Your task to perform on an android device: Add lg ultragear to the cart on bestbuy.com, then select checkout. Image 0: 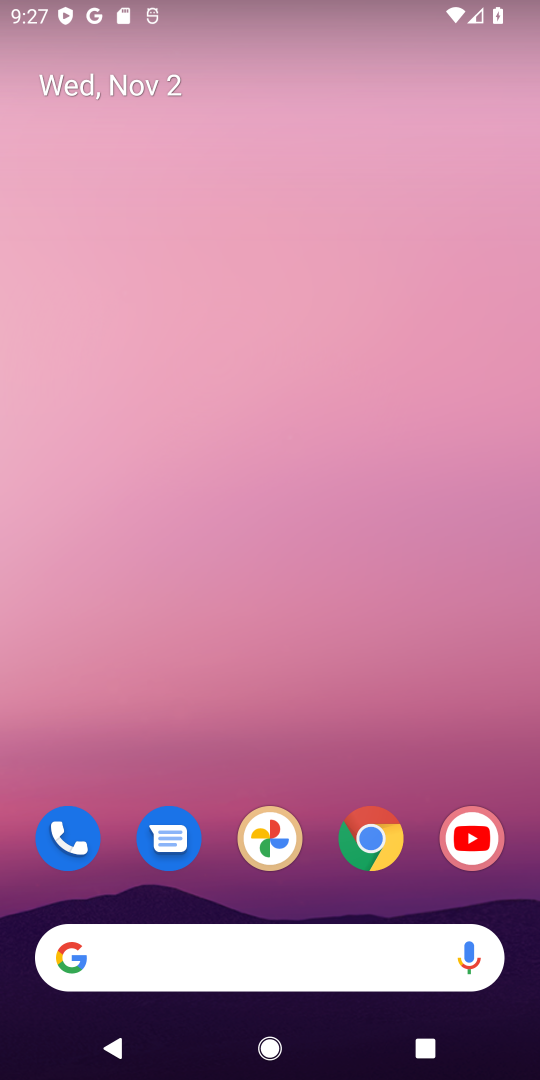
Step 0: click (380, 839)
Your task to perform on an android device: Add lg ultragear to the cart on bestbuy.com, then select checkout. Image 1: 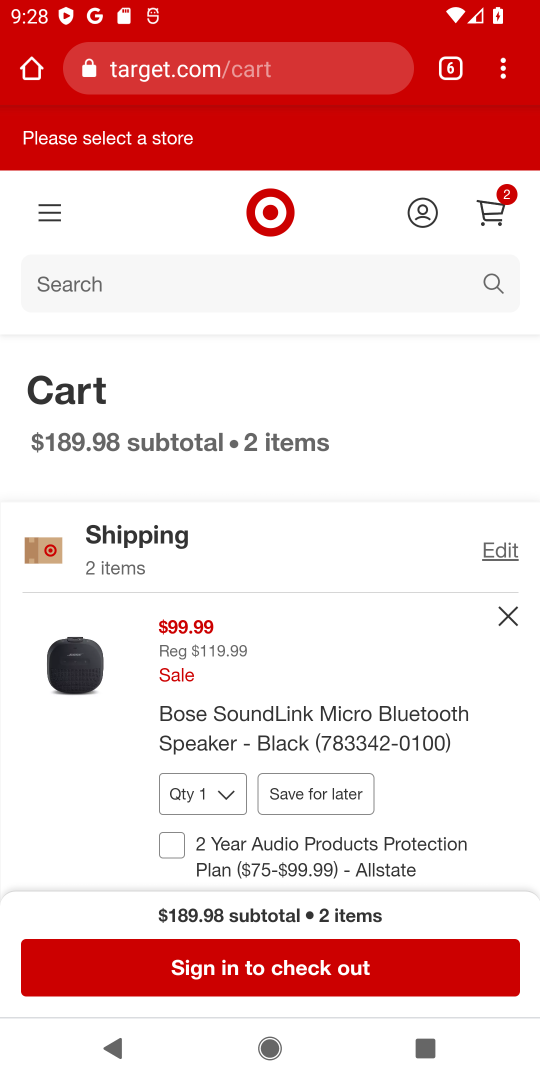
Step 1: click (456, 67)
Your task to perform on an android device: Add lg ultragear to the cart on bestbuy.com, then select checkout. Image 2: 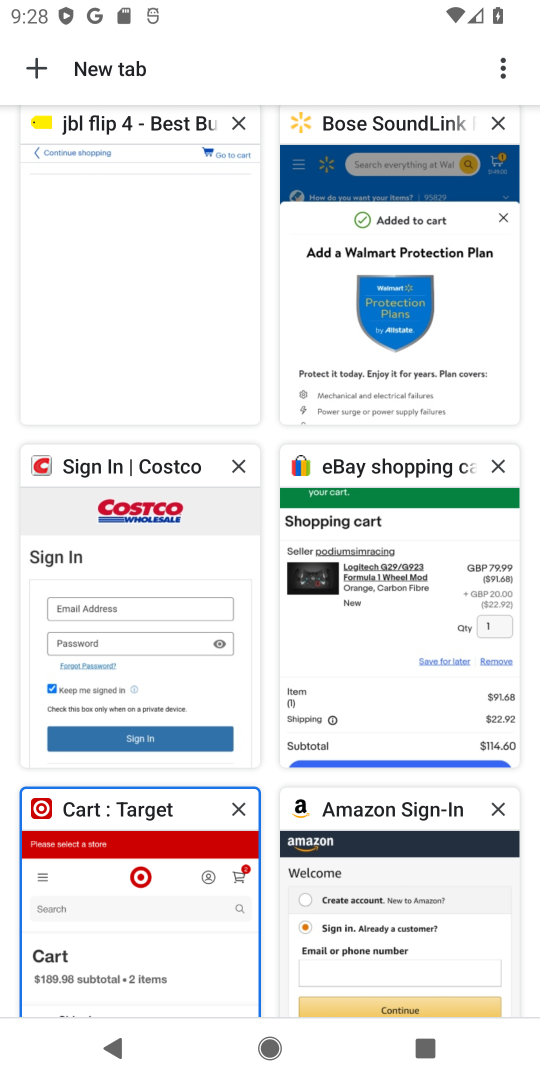
Step 2: click (456, 67)
Your task to perform on an android device: Add lg ultragear to the cart on bestbuy.com, then select checkout. Image 3: 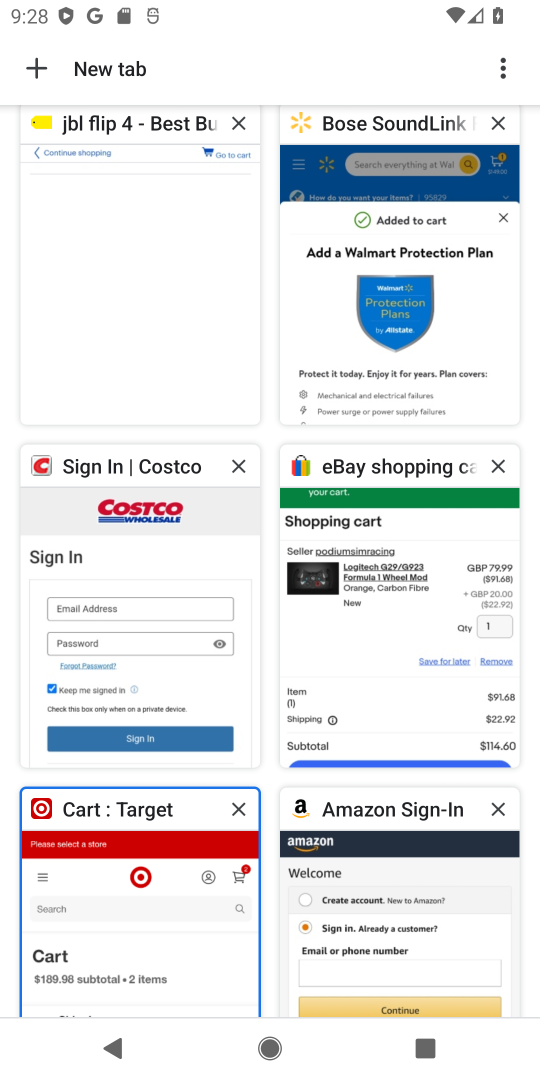
Step 3: click (151, 279)
Your task to perform on an android device: Add lg ultragear to the cart on bestbuy.com, then select checkout. Image 4: 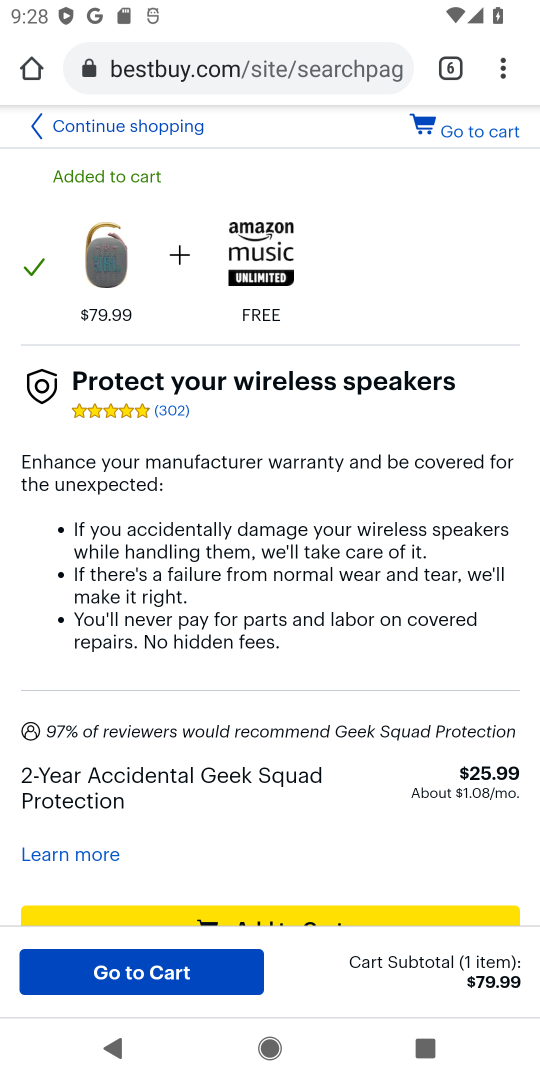
Step 4: click (140, 119)
Your task to perform on an android device: Add lg ultragear to the cart on bestbuy.com, then select checkout. Image 5: 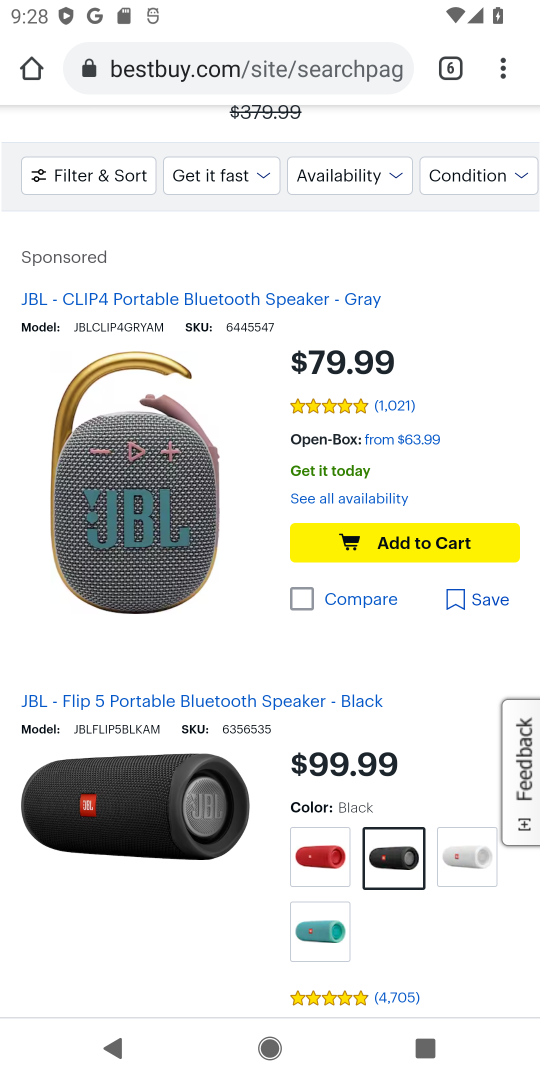
Step 5: drag from (469, 418) to (401, 765)
Your task to perform on an android device: Add lg ultragear to the cart on bestbuy.com, then select checkout. Image 6: 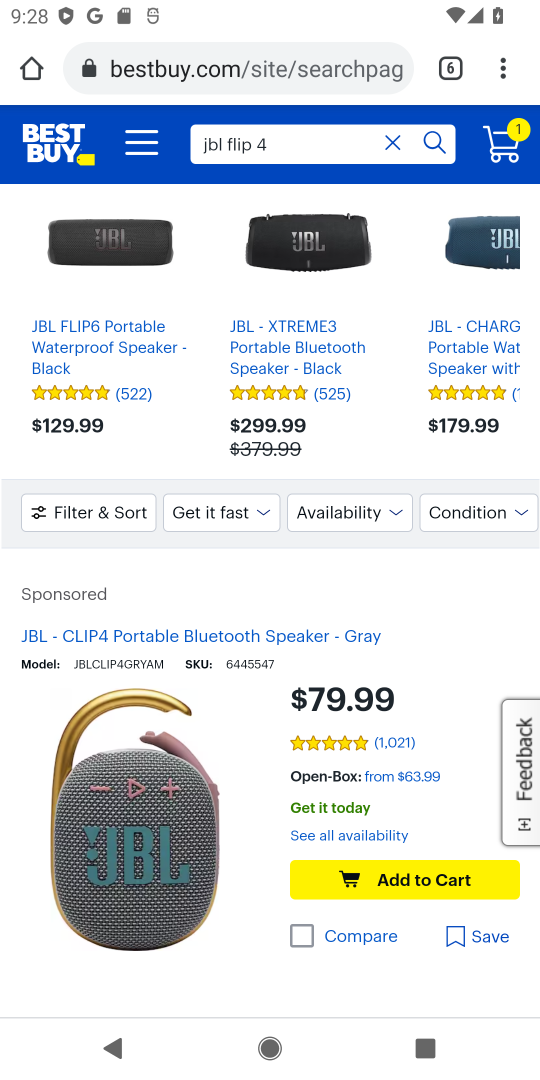
Step 6: click (388, 146)
Your task to perform on an android device: Add lg ultragear to the cart on bestbuy.com, then select checkout. Image 7: 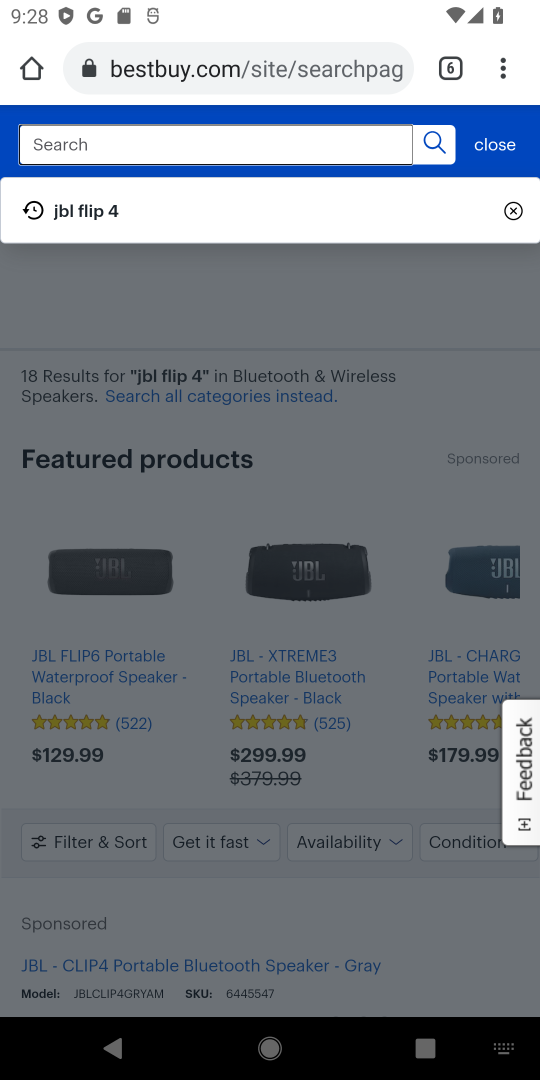
Step 7: type "lg ultragear"
Your task to perform on an android device: Add lg ultragear to the cart on bestbuy.com, then select checkout. Image 8: 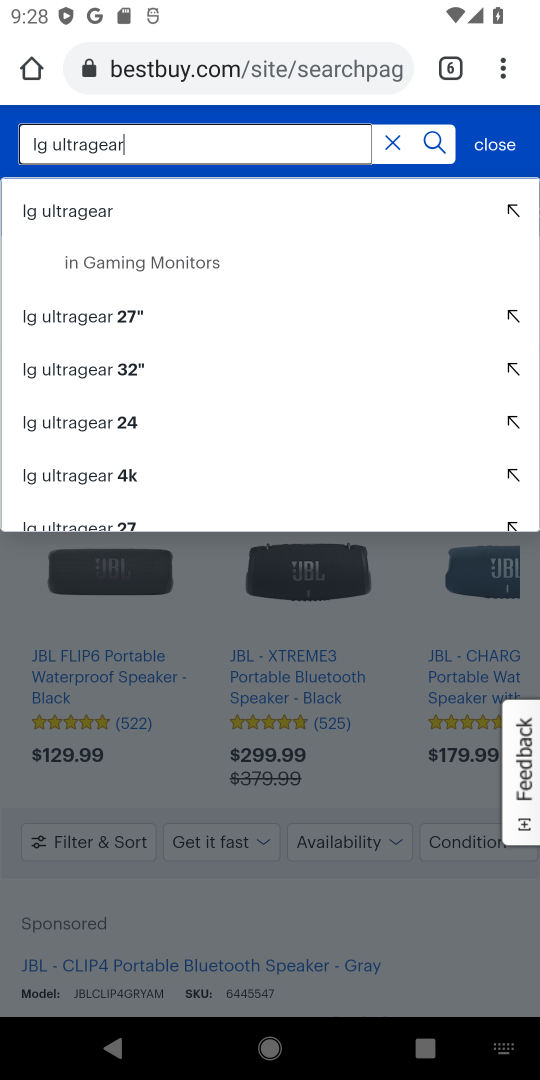
Step 8: click (97, 210)
Your task to perform on an android device: Add lg ultragear to the cart on bestbuy.com, then select checkout. Image 9: 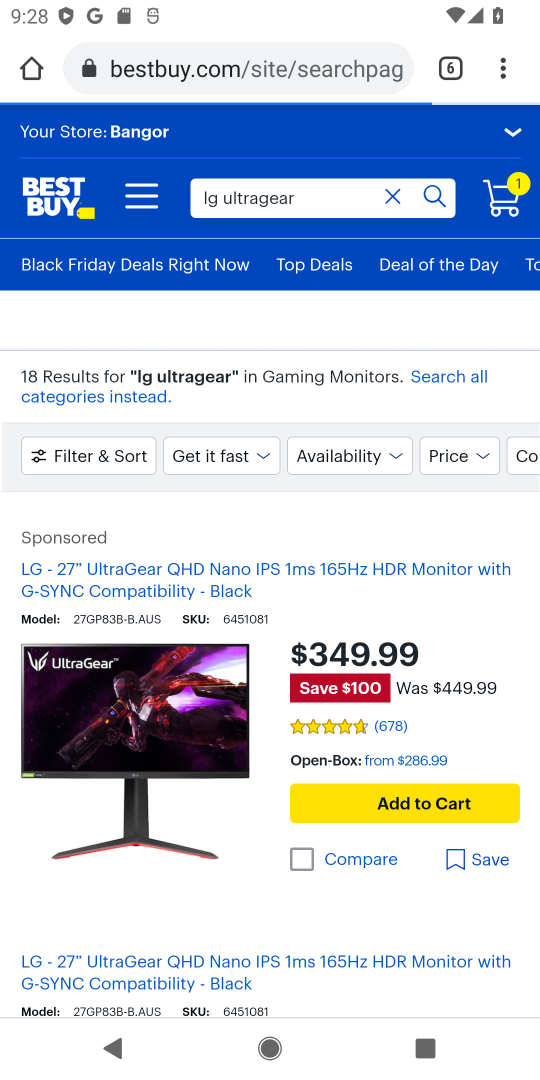
Step 9: click (416, 805)
Your task to perform on an android device: Add lg ultragear to the cart on bestbuy.com, then select checkout. Image 10: 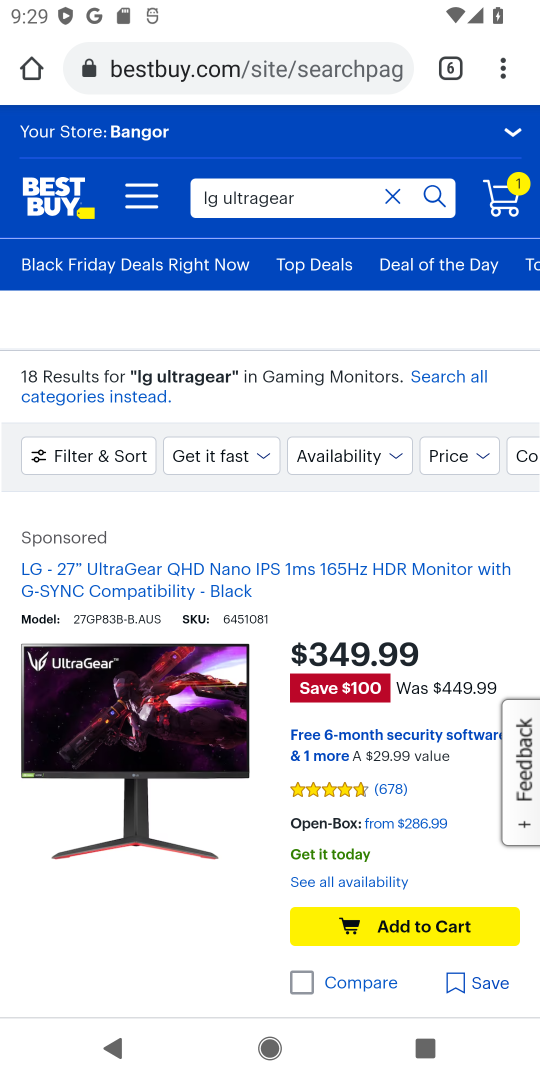
Step 10: click (445, 927)
Your task to perform on an android device: Add lg ultragear to the cart on bestbuy.com, then select checkout. Image 11: 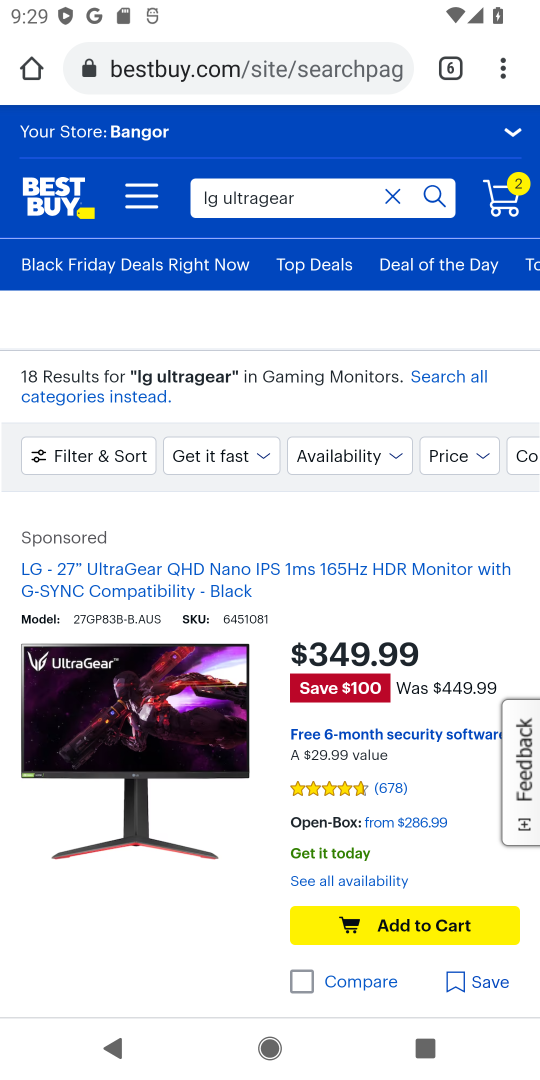
Step 11: click (503, 213)
Your task to perform on an android device: Add lg ultragear to the cart on bestbuy.com, then select checkout. Image 12: 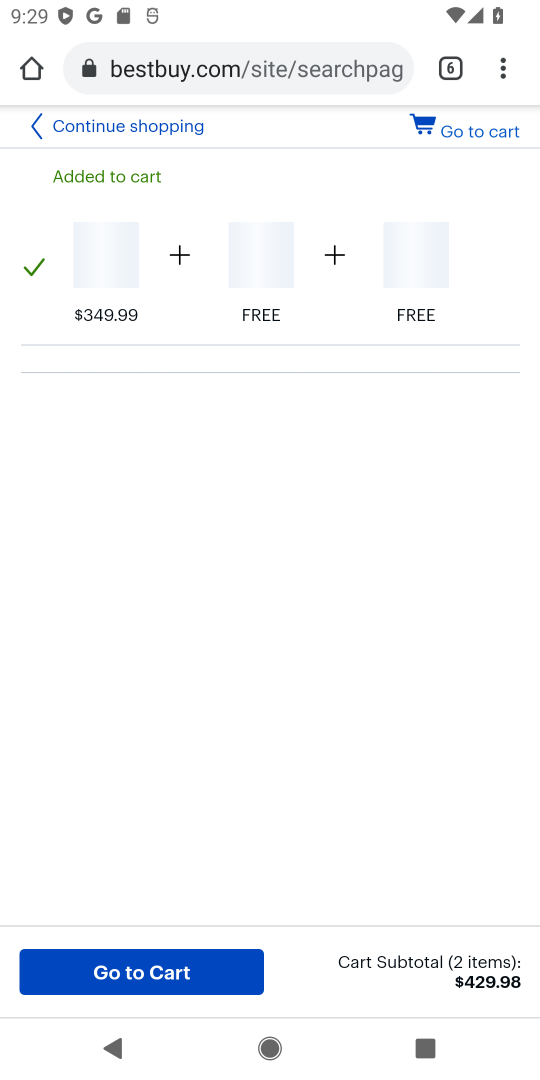
Step 12: click (165, 980)
Your task to perform on an android device: Add lg ultragear to the cart on bestbuy.com, then select checkout. Image 13: 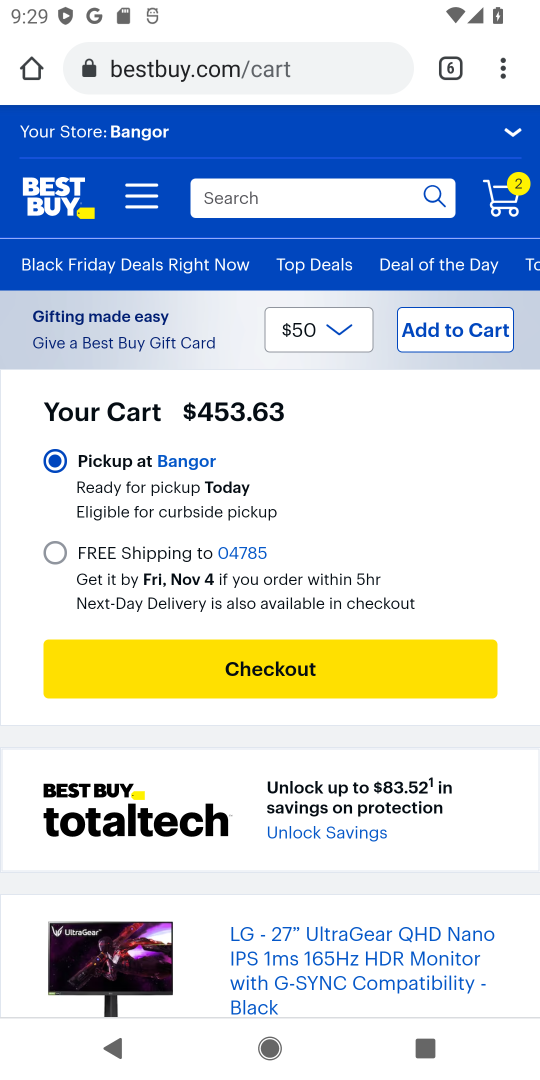
Step 13: click (317, 661)
Your task to perform on an android device: Add lg ultragear to the cart on bestbuy.com, then select checkout. Image 14: 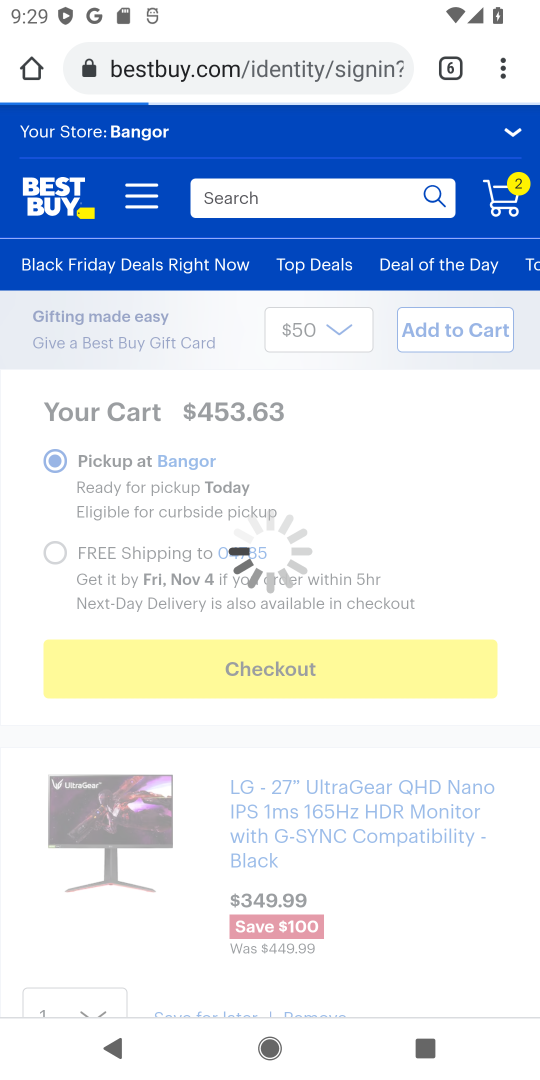
Step 14: task complete